Your task to perform on an android device: Open Youtube and go to "Your channel" Image 0: 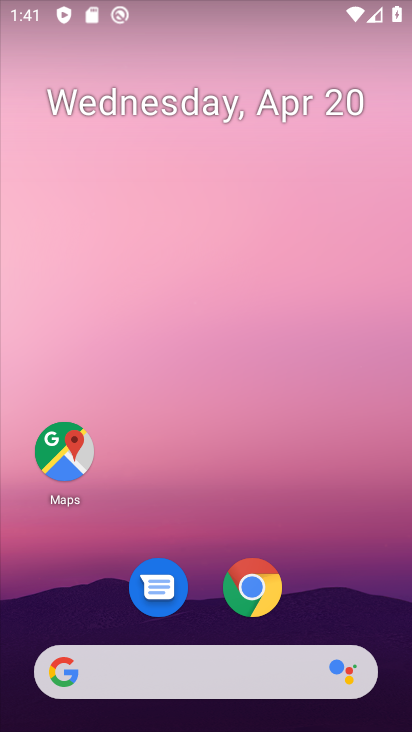
Step 0: drag from (401, 631) to (260, 126)
Your task to perform on an android device: Open Youtube and go to "Your channel" Image 1: 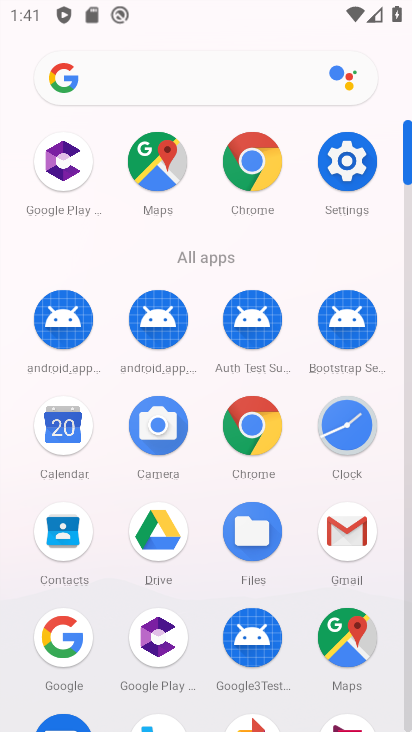
Step 1: click (411, 705)
Your task to perform on an android device: Open Youtube and go to "Your channel" Image 2: 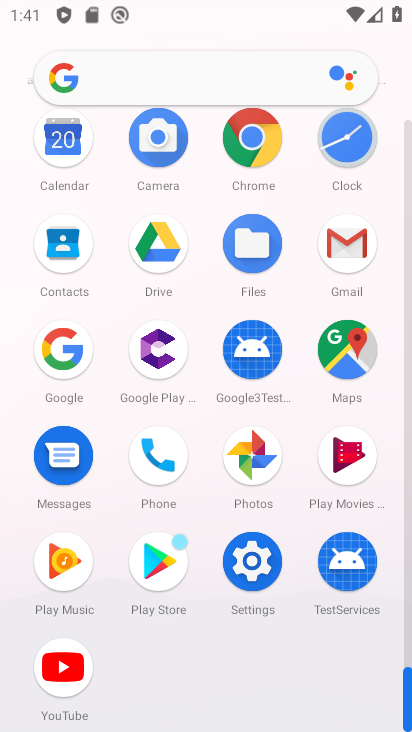
Step 2: click (46, 676)
Your task to perform on an android device: Open Youtube and go to "Your channel" Image 3: 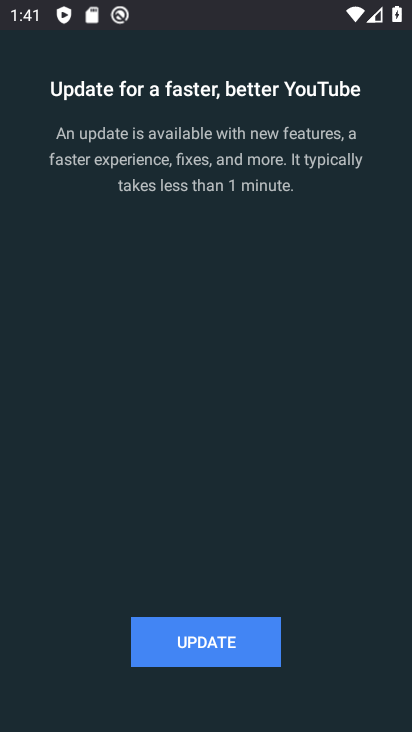
Step 3: click (169, 655)
Your task to perform on an android device: Open Youtube and go to "Your channel" Image 4: 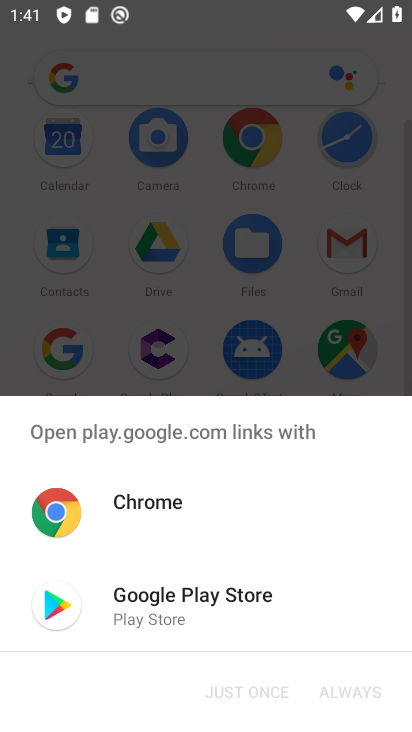
Step 4: click (247, 594)
Your task to perform on an android device: Open Youtube and go to "Your channel" Image 5: 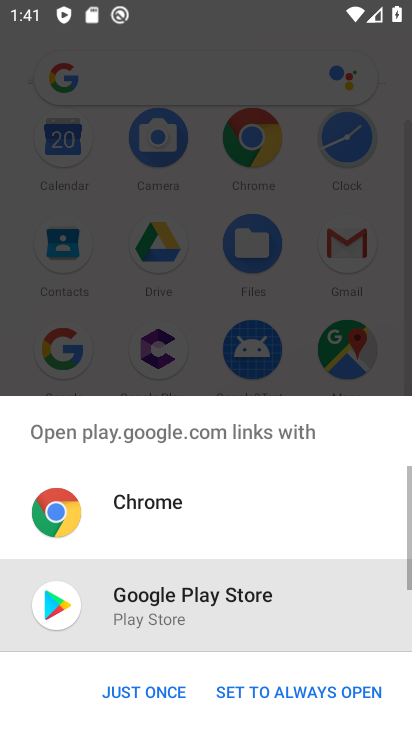
Step 5: click (146, 704)
Your task to perform on an android device: Open Youtube and go to "Your channel" Image 6: 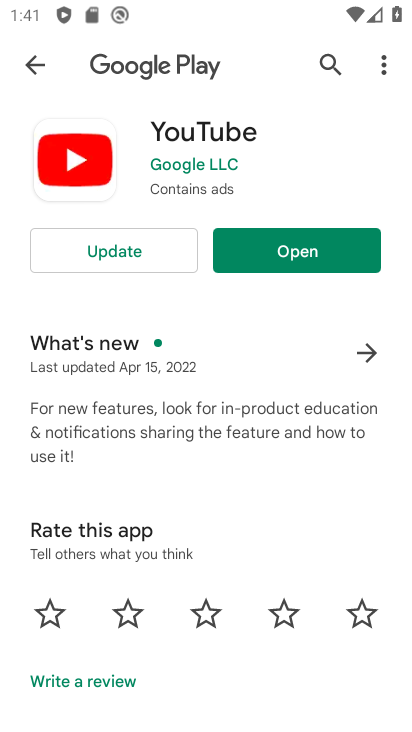
Step 6: click (166, 251)
Your task to perform on an android device: Open Youtube and go to "Your channel" Image 7: 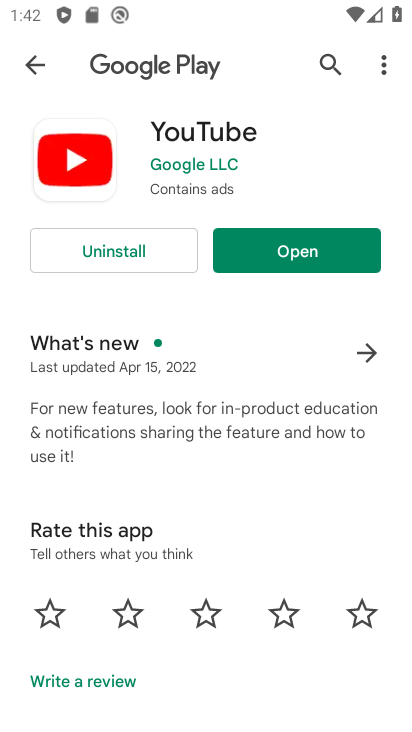
Step 7: click (356, 238)
Your task to perform on an android device: Open Youtube and go to "Your channel" Image 8: 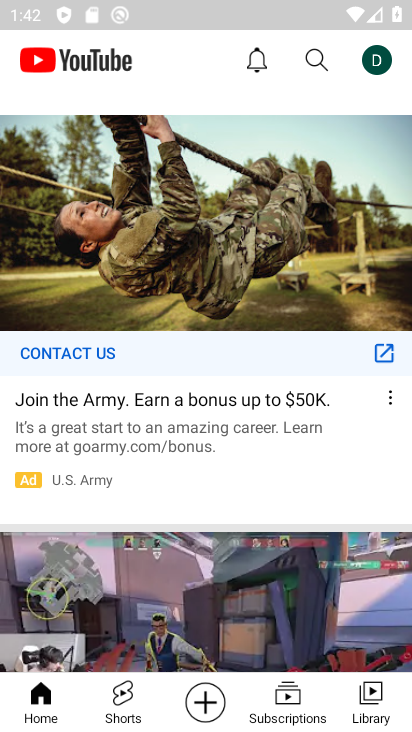
Step 8: click (378, 60)
Your task to perform on an android device: Open Youtube and go to "Your channel" Image 9: 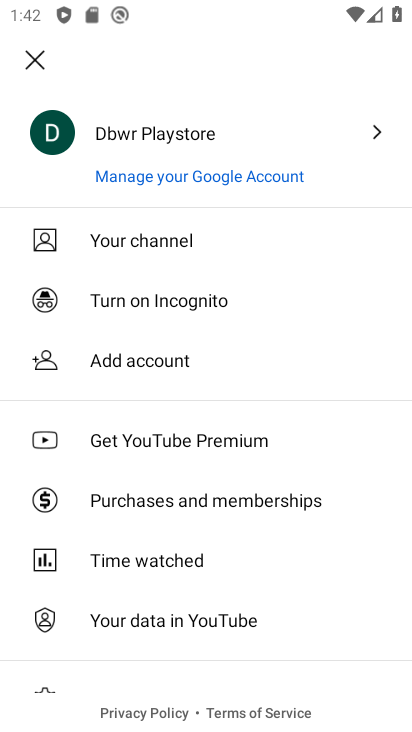
Step 9: click (280, 234)
Your task to perform on an android device: Open Youtube and go to "Your channel" Image 10: 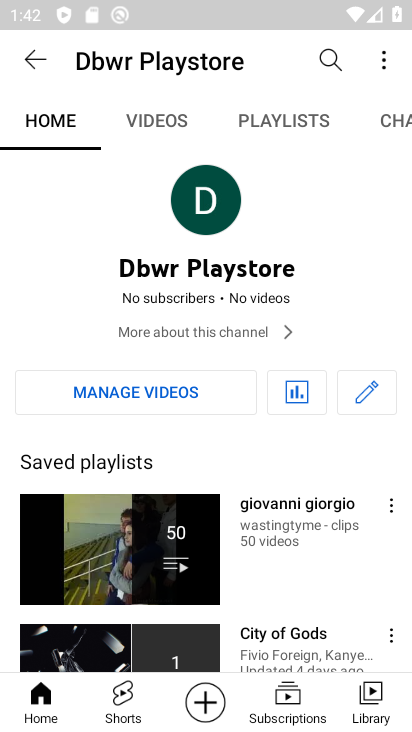
Step 10: task complete